Your task to perform on an android device: snooze an email in the gmail app Image 0: 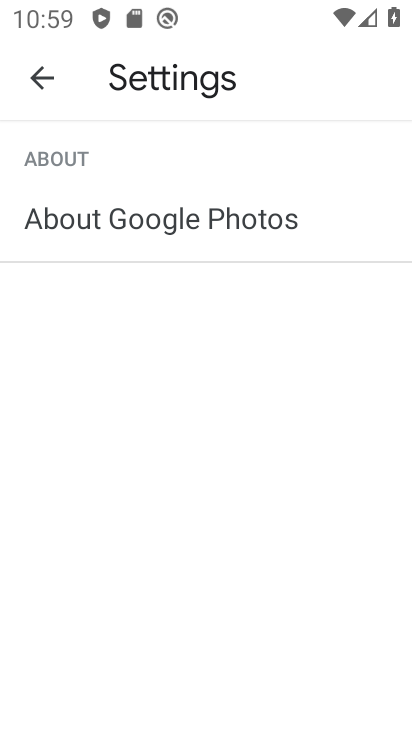
Step 0: press home button
Your task to perform on an android device: snooze an email in the gmail app Image 1: 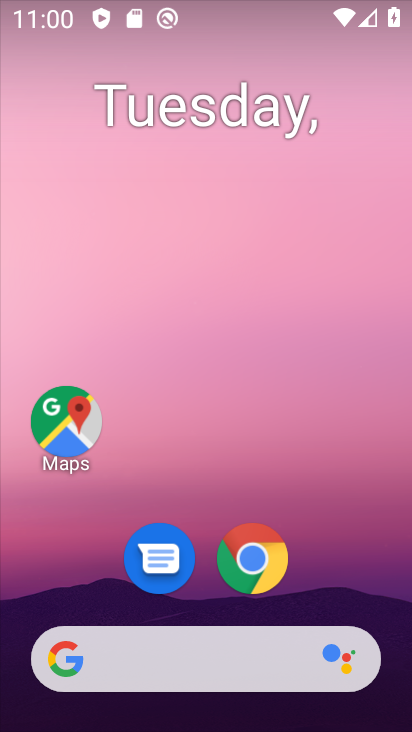
Step 1: drag from (364, 578) to (277, 129)
Your task to perform on an android device: snooze an email in the gmail app Image 2: 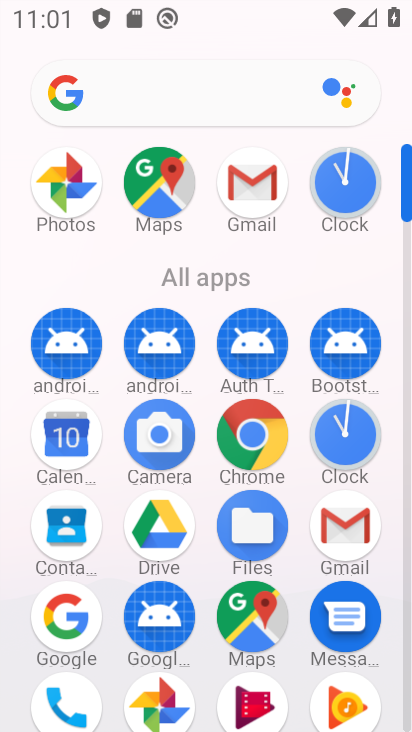
Step 2: drag from (106, 483) to (106, 322)
Your task to perform on an android device: snooze an email in the gmail app Image 3: 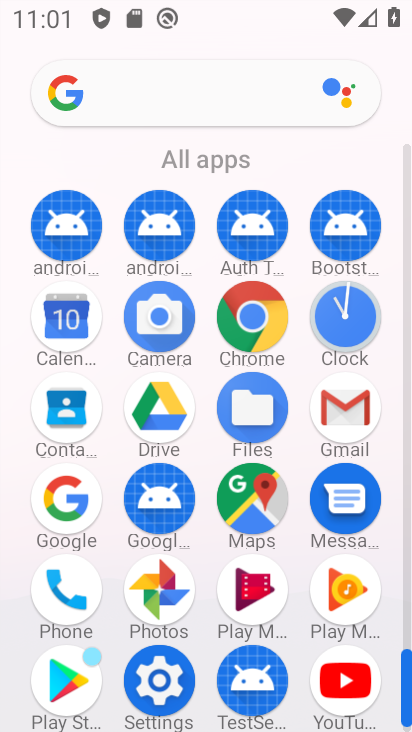
Step 3: drag from (290, 456) to (300, 350)
Your task to perform on an android device: snooze an email in the gmail app Image 4: 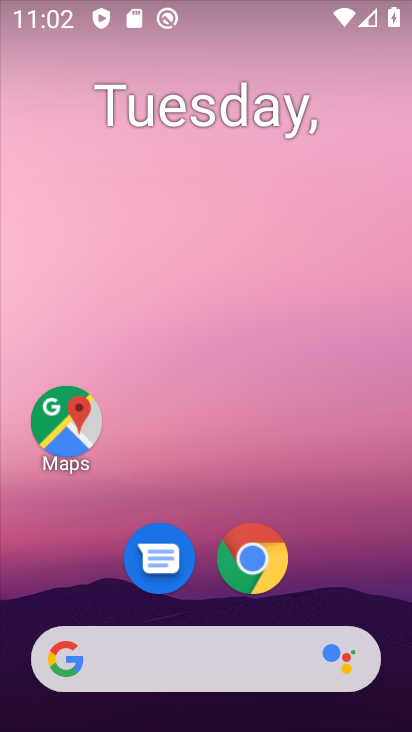
Step 4: drag from (317, 496) to (281, 217)
Your task to perform on an android device: snooze an email in the gmail app Image 5: 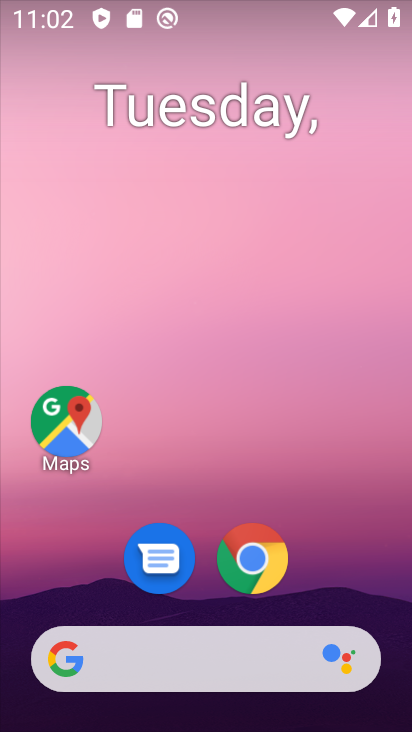
Step 5: drag from (370, 544) to (297, 53)
Your task to perform on an android device: snooze an email in the gmail app Image 6: 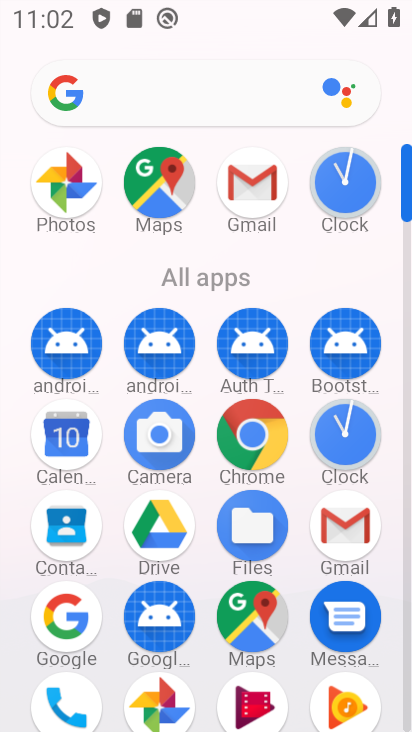
Step 6: click (247, 198)
Your task to perform on an android device: snooze an email in the gmail app Image 7: 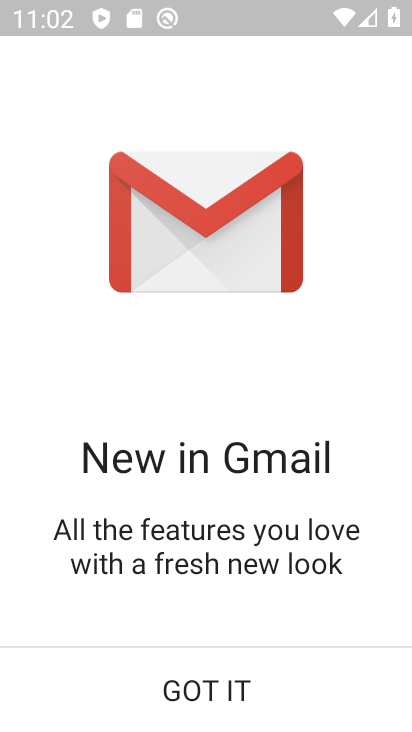
Step 7: click (267, 658)
Your task to perform on an android device: snooze an email in the gmail app Image 8: 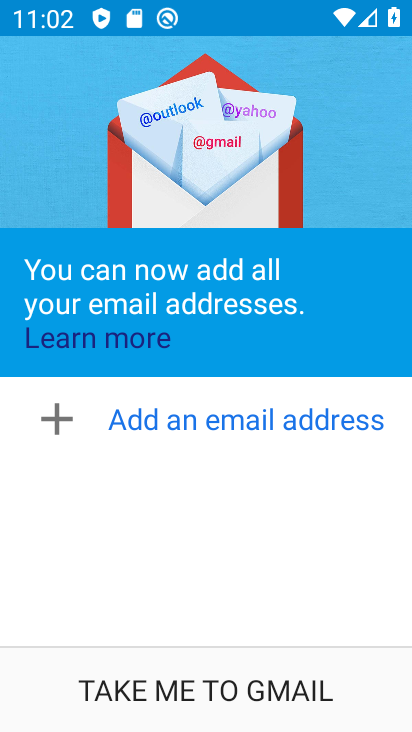
Step 8: click (267, 658)
Your task to perform on an android device: snooze an email in the gmail app Image 9: 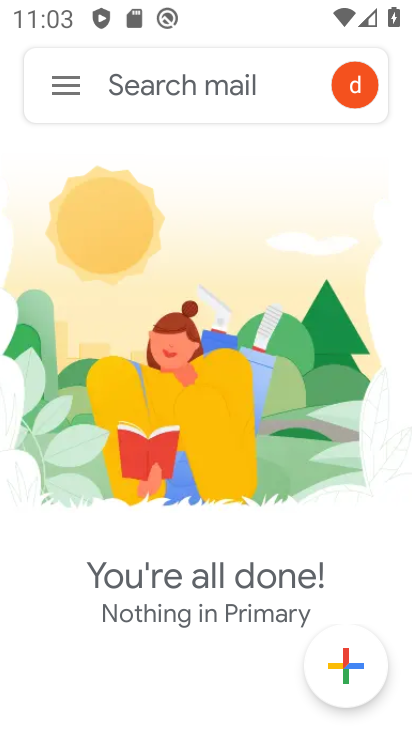
Step 9: click (76, 86)
Your task to perform on an android device: snooze an email in the gmail app Image 10: 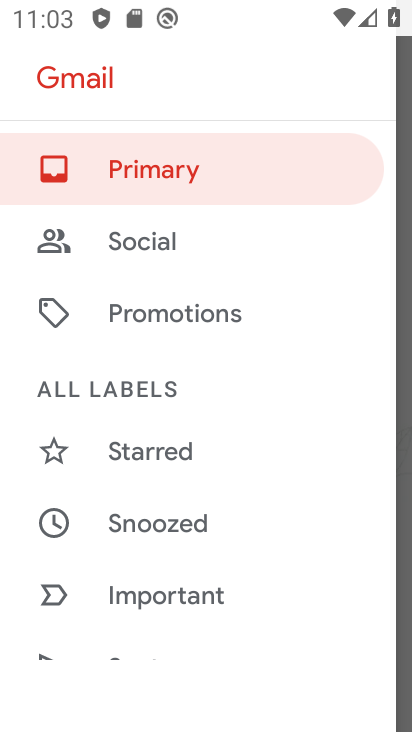
Step 10: click (177, 520)
Your task to perform on an android device: snooze an email in the gmail app Image 11: 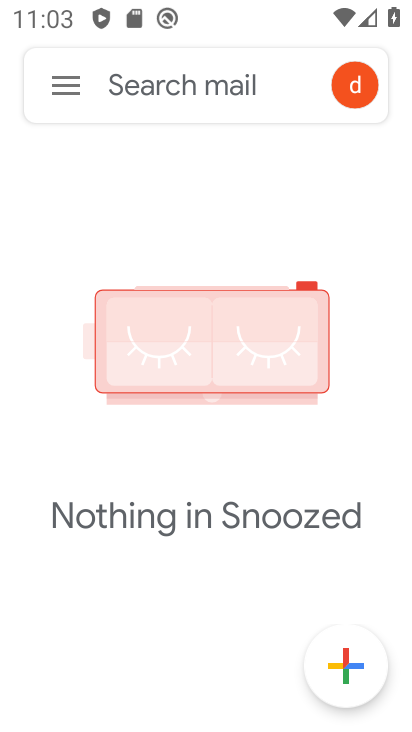
Step 11: task complete